Your task to perform on an android device: Open the calendar and show me this week's events? Image 0: 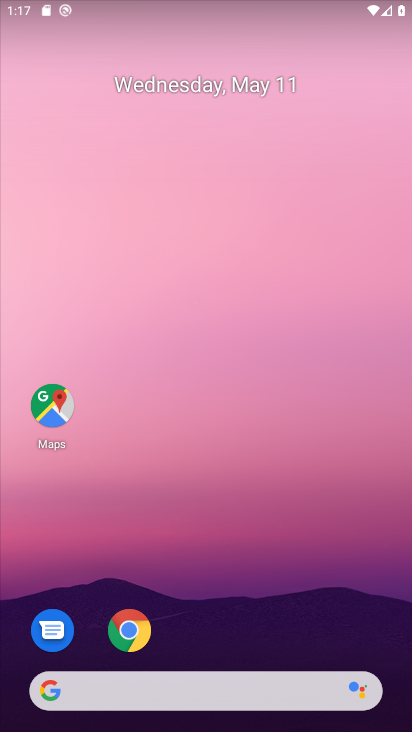
Step 0: drag from (305, 577) to (259, 115)
Your task to perform on an android device: Open the calendar and show me this week's events? Image 1: 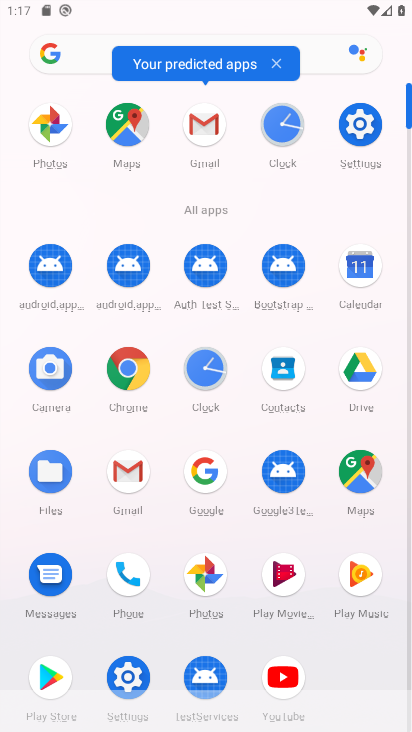
Step 1: click (352, 268)
Your task to perform on an android device: Open the calendar and show me this week's events? Image 2: 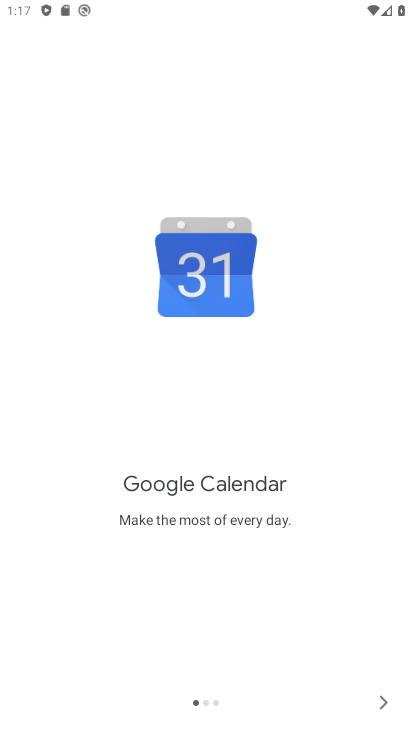
Step 2: click (364, 701)
Your task to perform on an android device: Open the calendar and show me this week's events? Image 3: 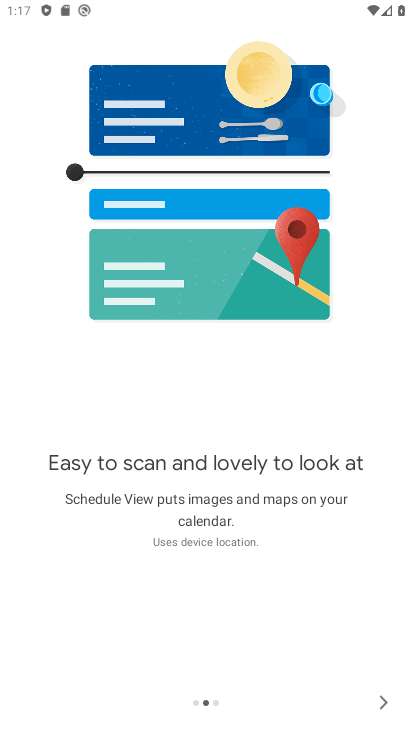
Step 3: click (382, 703)
Your task to perform on an android device: Open the calendar and show me this week's events? Image 4: 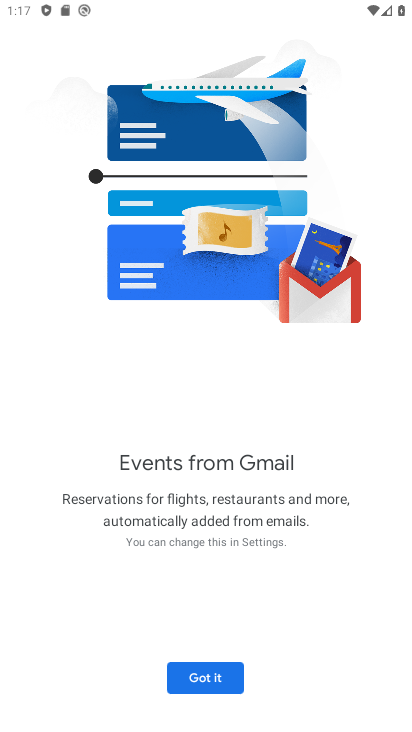
Step 4: click (220, 677)
Your task to perform on an android device: Open the calendar and show me this week's events? Image 5: 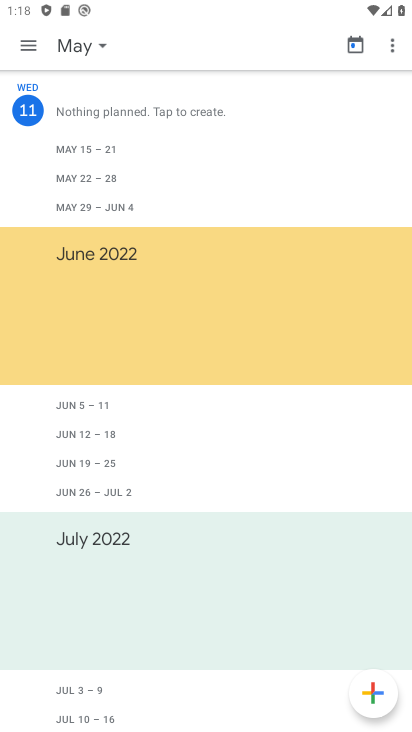
Step 5: click (71, 48)
Your task to perform on an android device: Open the calendar and show me this week's events? Image 6: 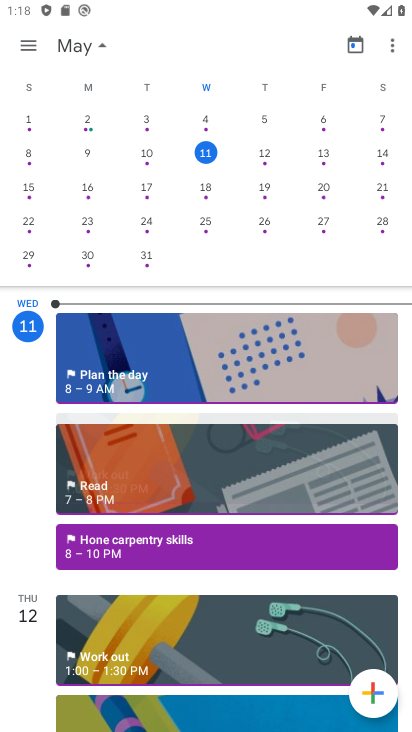
Step 6: click (276, 155)
Your task to perform on an android device: Open the calendar and show me this week's events? Image 7: 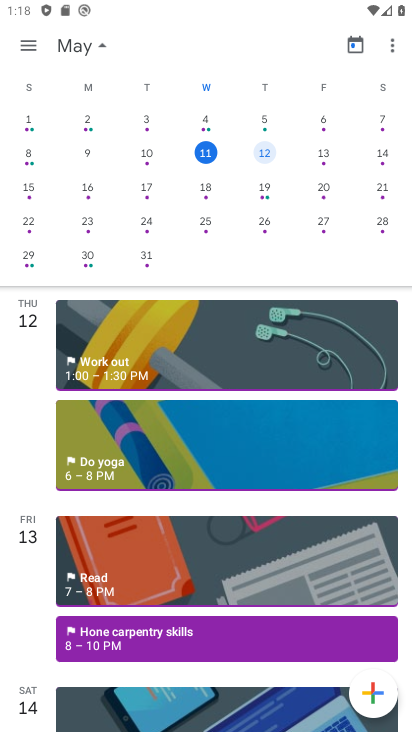
Step 7: task complete